Your task to perform on an android device: clear history in the chrome app Image 0: 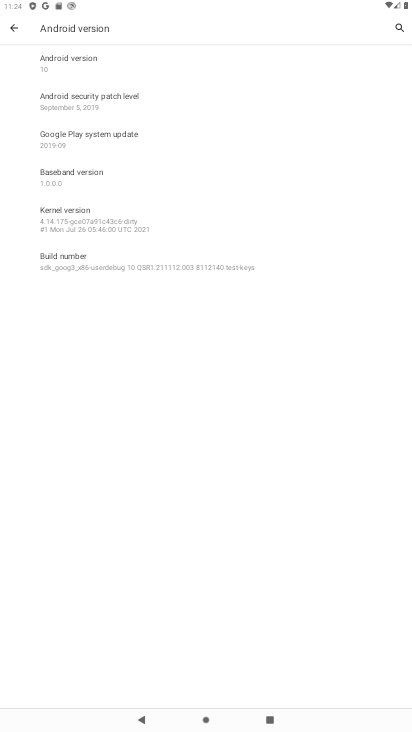
Step 0: press home button
Your task to perform on an android device: clear history in the chrome app Image 1: 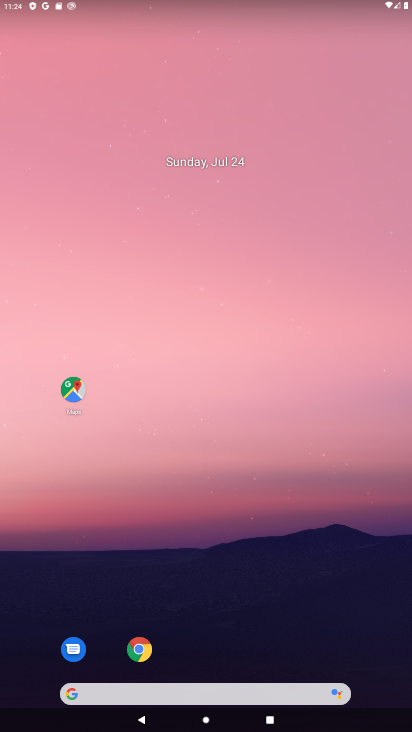
Step 1: click (135, 645)
Your task to perform on an android device: clear history in the chrome app Image 2: 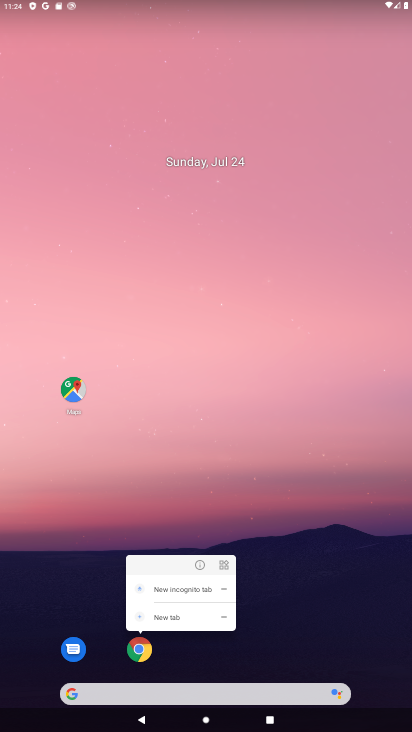
Step 2: click (135, 645)
Your task to perform on an android device: clear history in the chrome app Image 3: 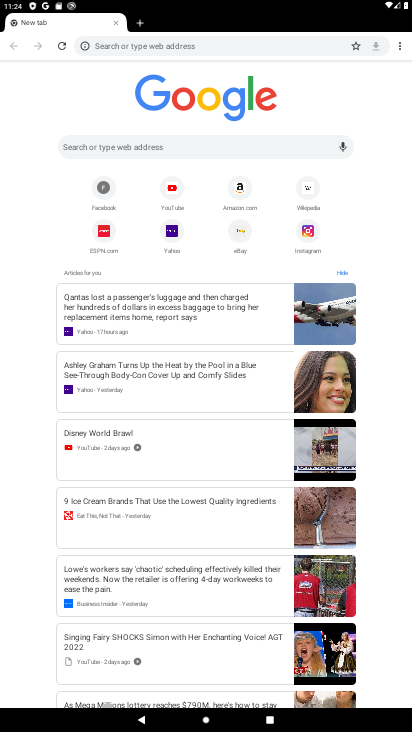
Step 3: click (401, 45)
Your task to perform on an android device: clear history in the chrome app Image 4: 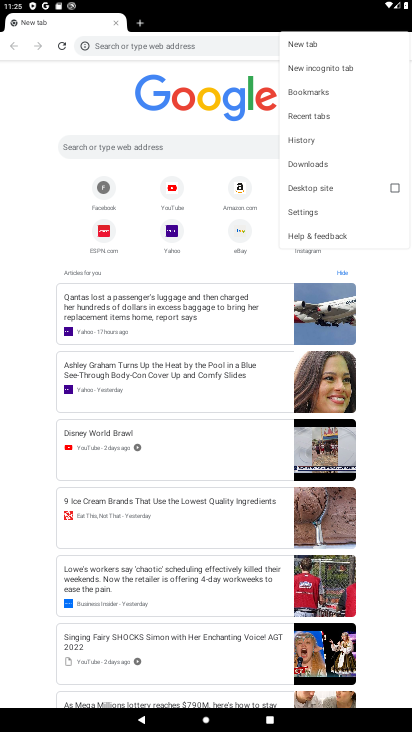
Step 4: click (315, 137)
Your task to perform on an android device: clear history in the chrome app Image 5: 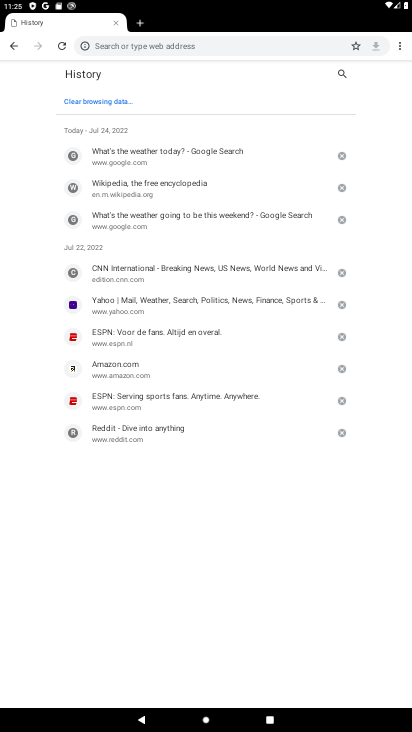
Step 5: click (92, 99)
Your task to perform on an android device: clear history in the chrome app Image 6: 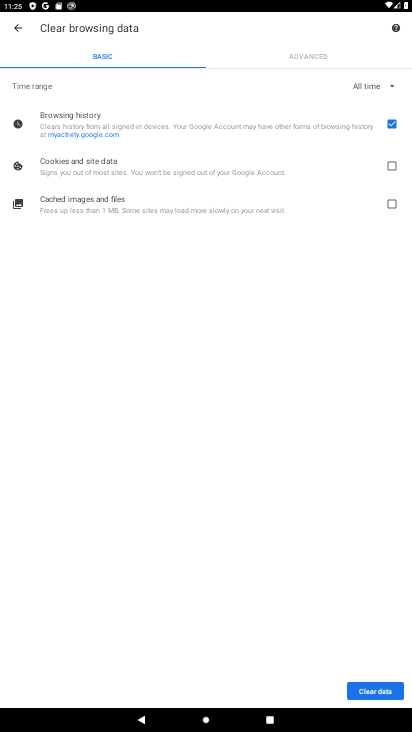
Step 6: click (385, 162)
Your task to perform on an android device: clear history in the chrome app Image 7: 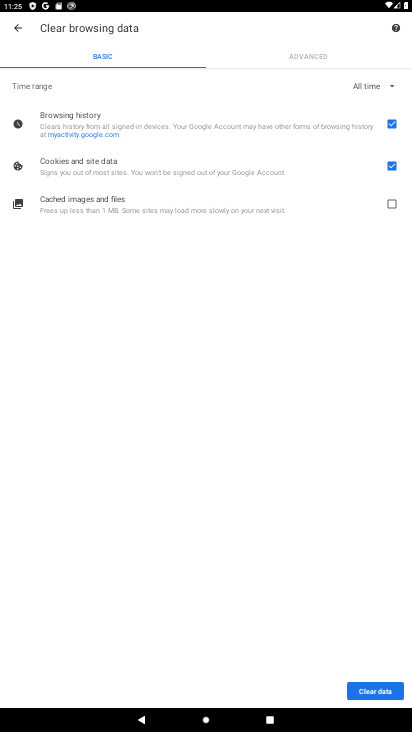
Step 7: click (389, 204)
Your task to perform on an android device: clear history in the chrome app Image 8: 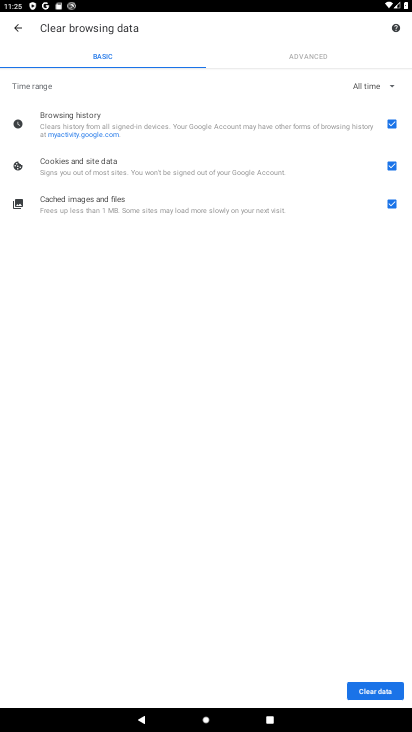
Step 8: click (375, 688)
Your task to perform on an android device: clear history in the chrome app Image 9: 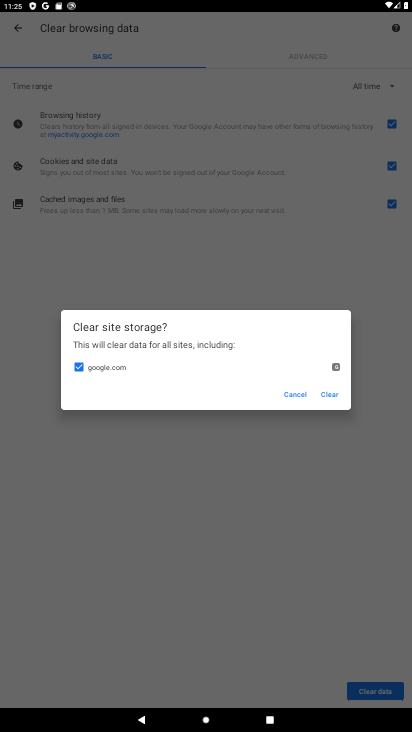
Step 9: click (327, 394)
Your task to perform on an android device: clear history in the chrome app Image 10: 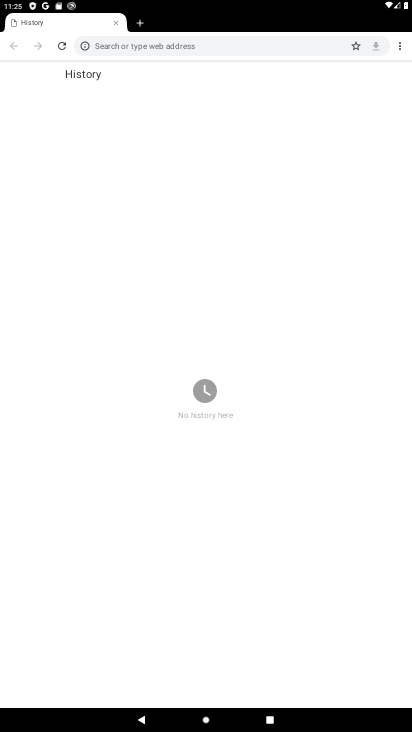
Step 10: task complete